Your task to perform on an android device: turn off notifications in google photos Image 0: 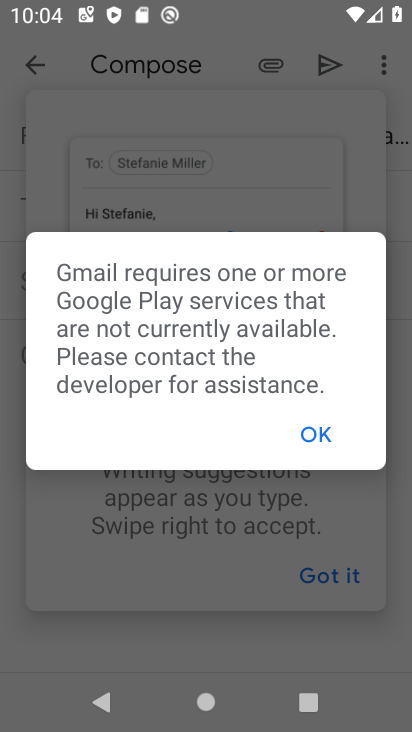
Step 0: press home button
Your task to perform on an android device: turn off notifications in google photos Image 1: 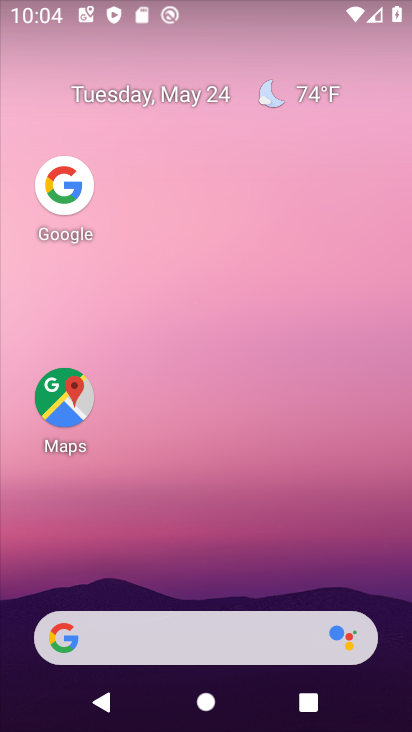
Step 1: drag from (217, 584) to (143, 93)
Your task to perform on an android device: turn off notifications in google photos Image 2: 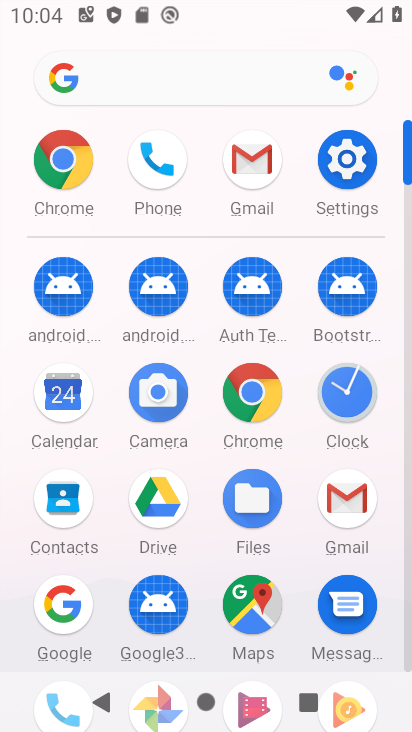
Step 2: drag from (207, 644) to (157, 229)
Your task to perform on an android device: turn off notifications in google photos Image 3: 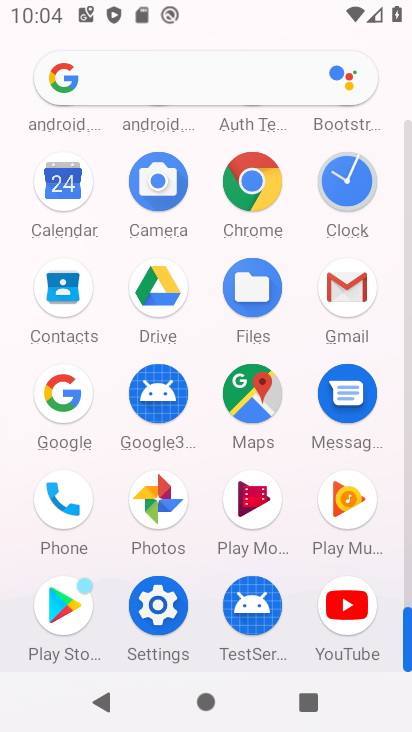
Step 3: click (146, 510)
Your task to perform on an android device: turn off notifications in google photos Image 4: 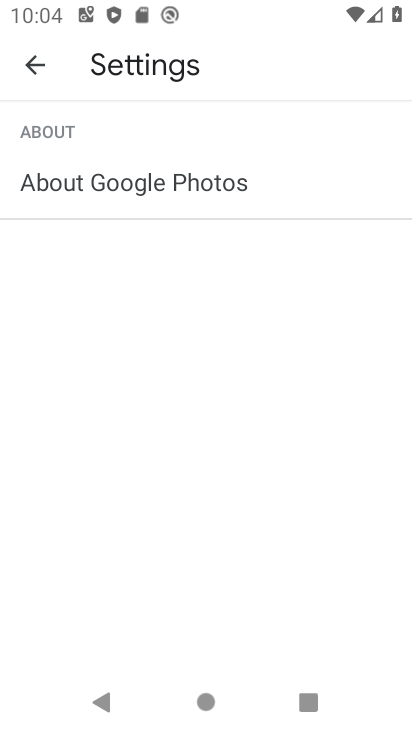
Step 4: click (28, 55)
Your task to perform on an android device: turn off notifications in google photos Image 5: 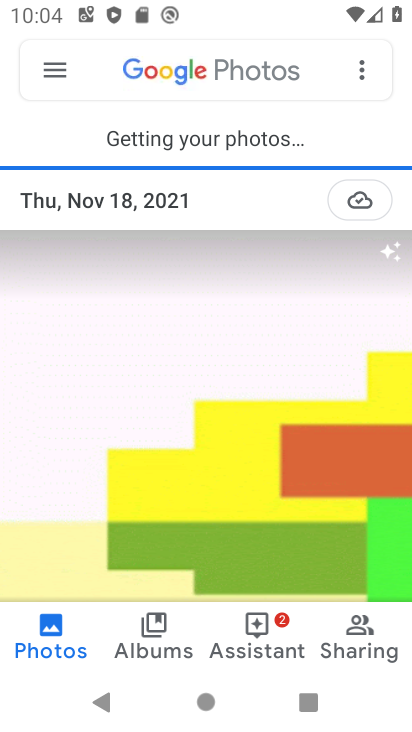
Step 5: click (28, 55)
Your task to perform on an android device: turn off notifications in google photos Image 6: 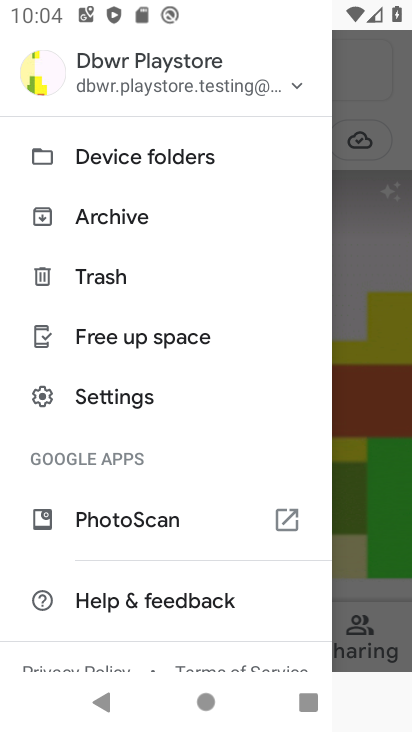
Step 6: click (108, 398)
Your task to perform on an android device: turn off notifications in google photos Image 7: 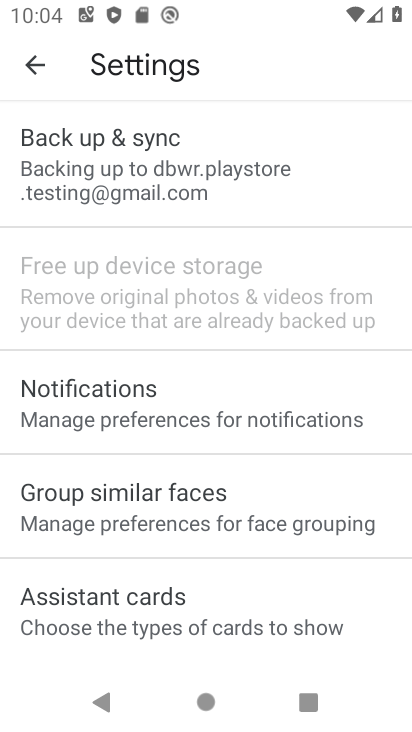
Step 7: click (108, 398)
Your task to perform on an android device: turn off notifications in google photos Image 8: 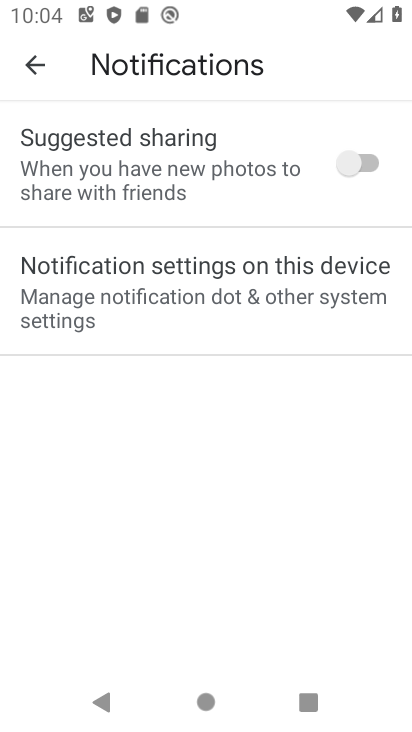
Step 8: click (305, 264)
Your task to perform on an android device: turn off notifications in google photos Image 9: 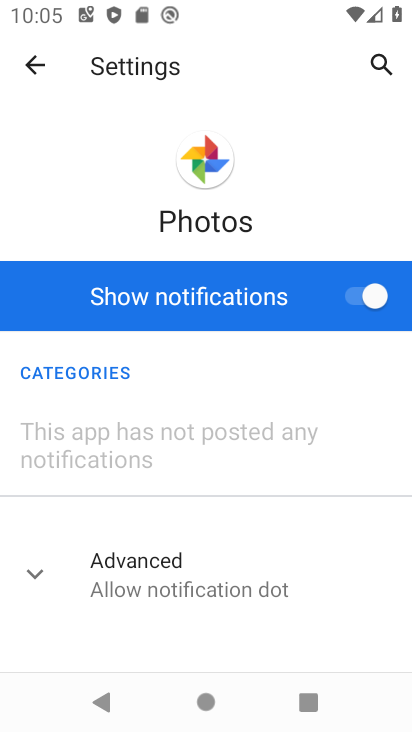
Step 9: click (361, 290)
Your task to perform on an android device: turn off notifications in google photos Image 10: 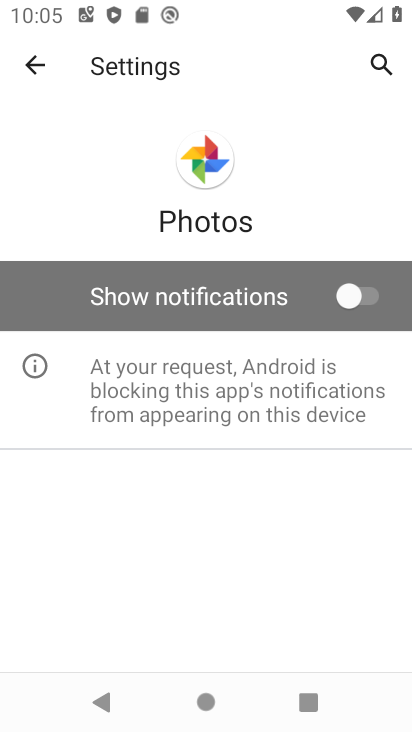
Step 10: task complete